Your task to perform on an android device: snooze an email in the gmail app Image 0: 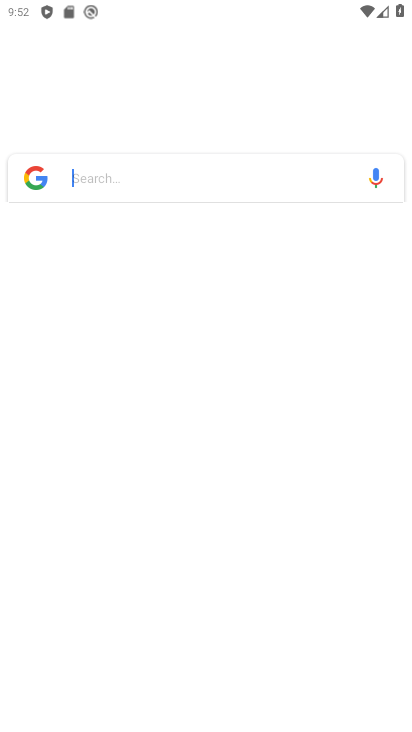
Step 0: press home button
Your task to perform on an android device: snooze an email in the gmail app Image 1: 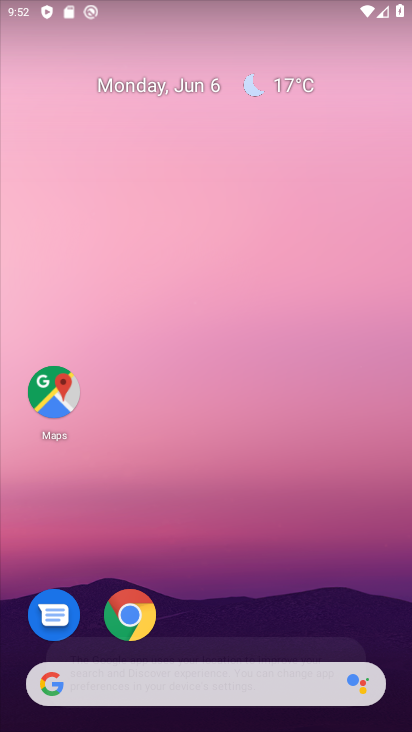
Step 1: drag from (217, 615) to (261, 129)
Your task to perform on an android device: snooze an email in the gmail app Image 2: 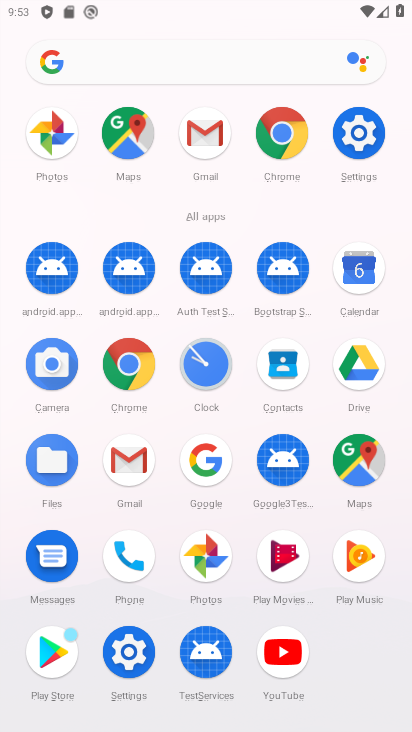
Step 2: click (203, 127)
Your task to perform on an android device: snooze an email in the gmail app Image 3: 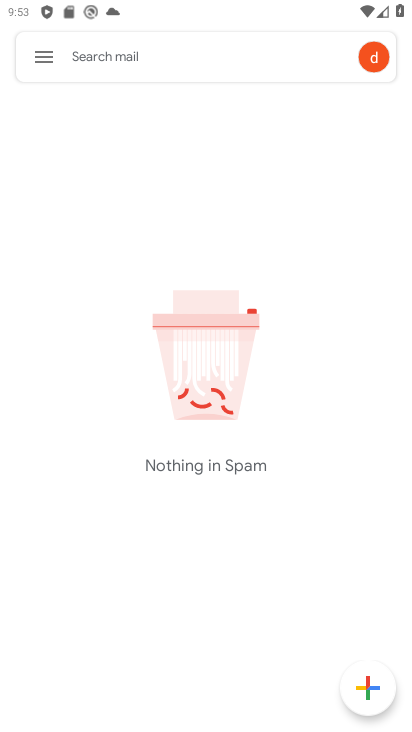
Step 3: click (36, 57)
Your task to perform on an android device: snooze an email in the gmail app Image 4: 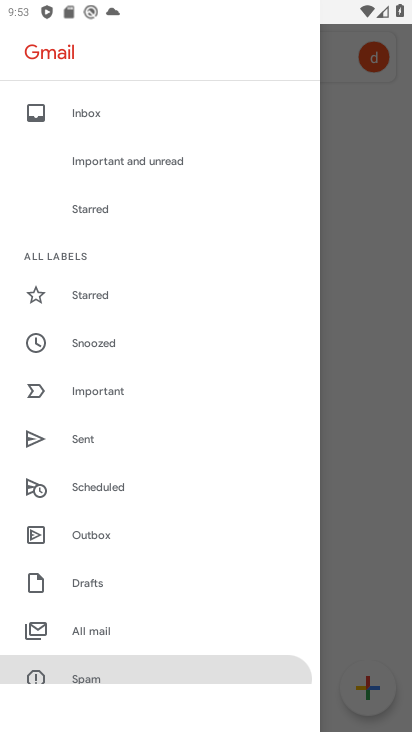
Step 4: click (118, 625)
Your task to perform on an android device: snooze an email in the gmail app Image 5: 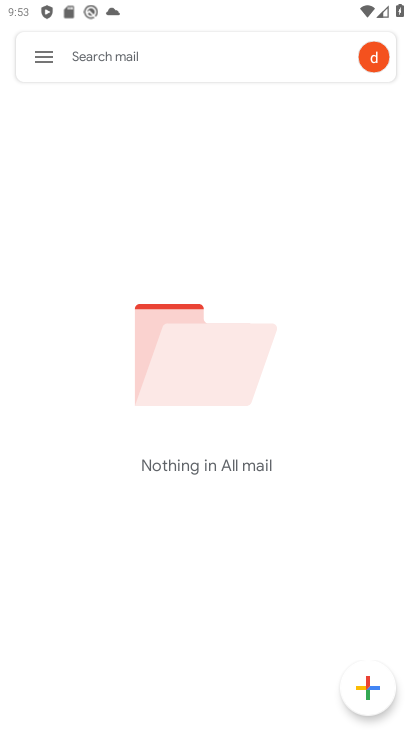
Step 5: task complete